Your task to perform on an android device: Open notification settings Image 0: 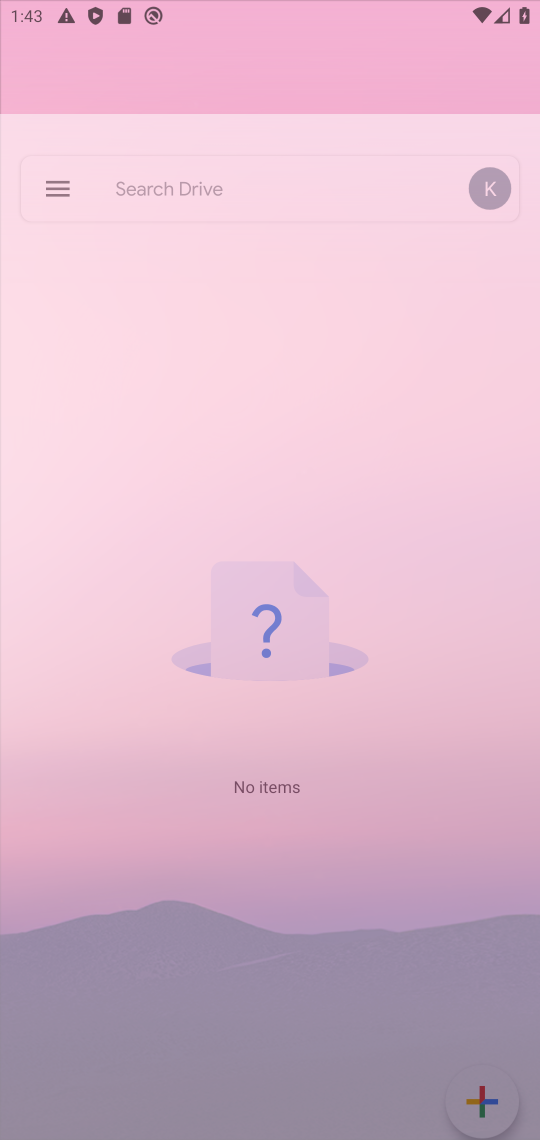
Step 0: press back button
Your task to perform on an android device: Open notification settings Image 1: 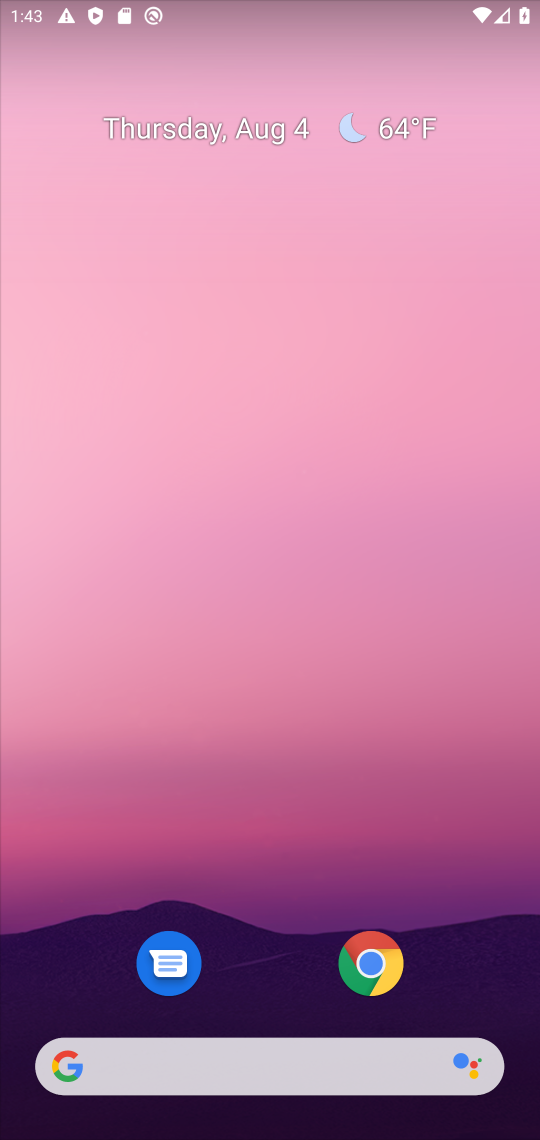
Step 1: drag from (265, 1056) to (194, 312)
Your task to perform on an android device: Open notification settings Image 2: 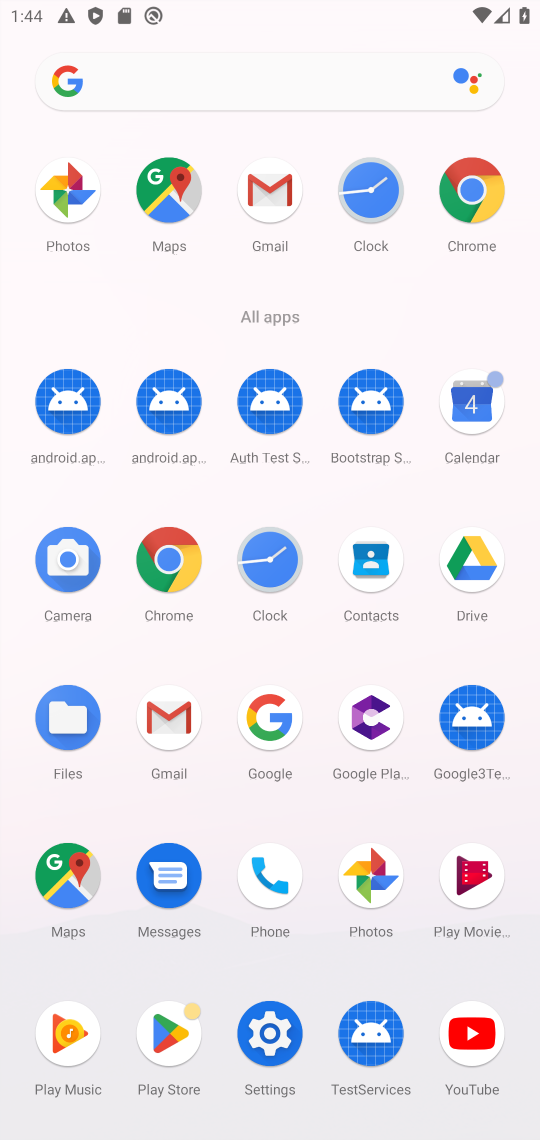
Step 2: click (269, 1053)
Your task to perform on an android device: Open notification settings Image 3: 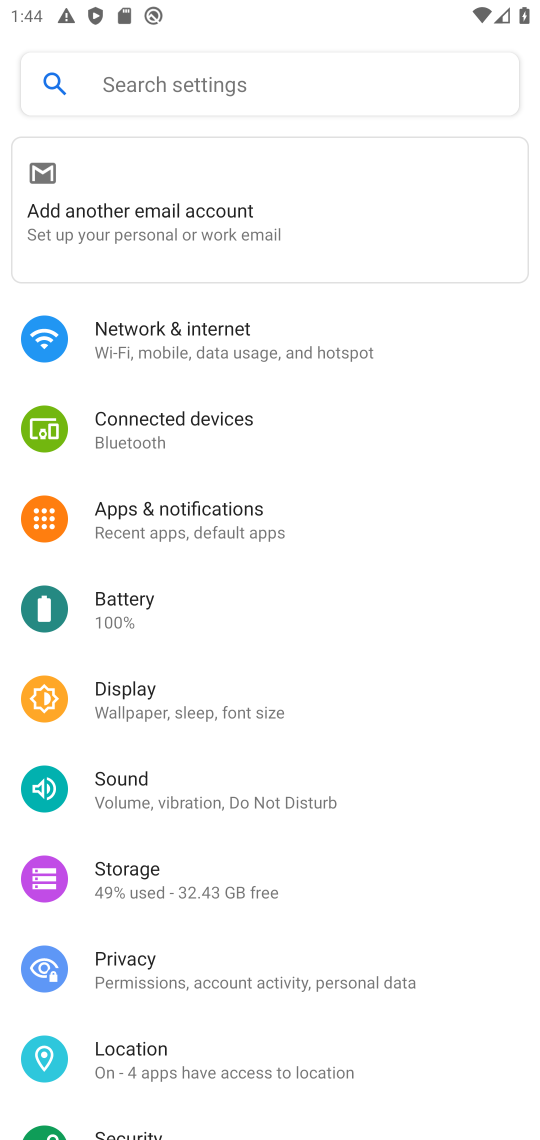
Step 3: click (182, 513)
Your task to perform on an android device: Open notification settings Image 4: 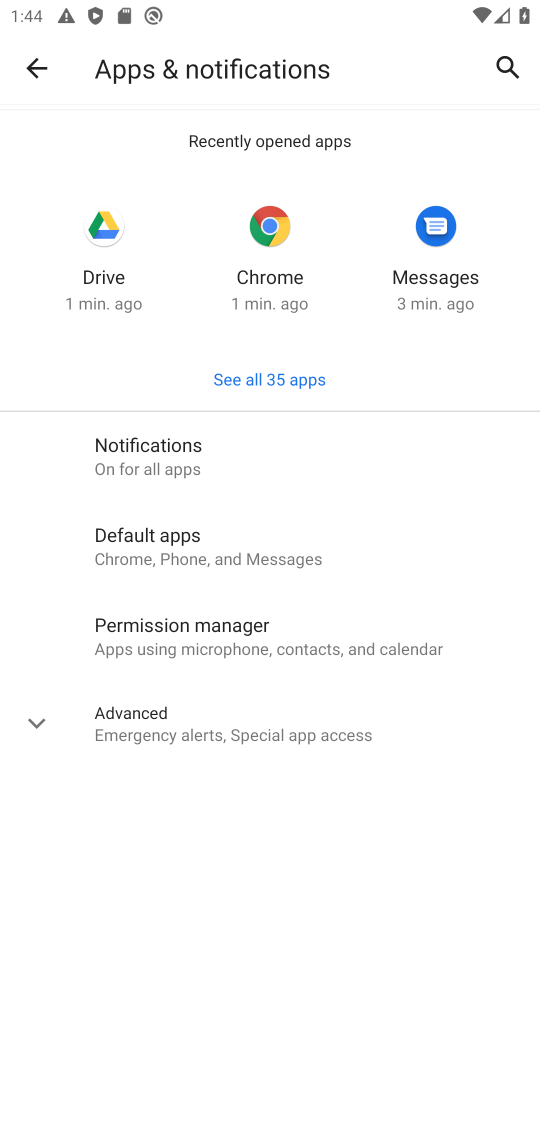
Step 4: task complete